Your task to perform on an android device: Search for seafood restaurants on Google Maps Image 0: 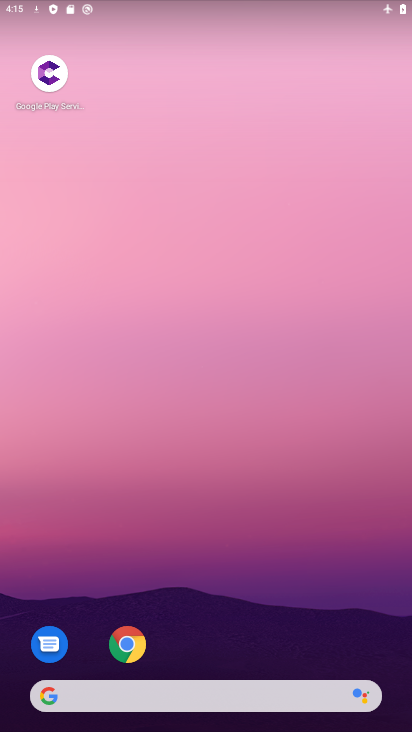
Step 0: drag from (245, 603) to (268, 283)
Your task to perform on an android device: Search for seafood restaurants on Google Maps Image 1: 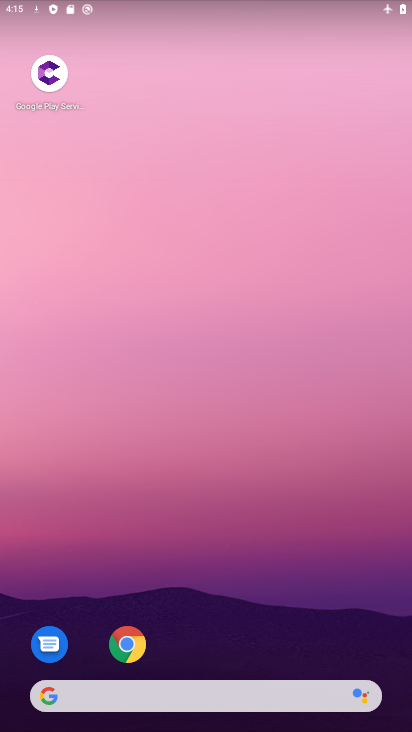
Step 1: click (199, 224)
Your task to perform on an android device: Search for seafood restaurants on Google Maps Image 2: 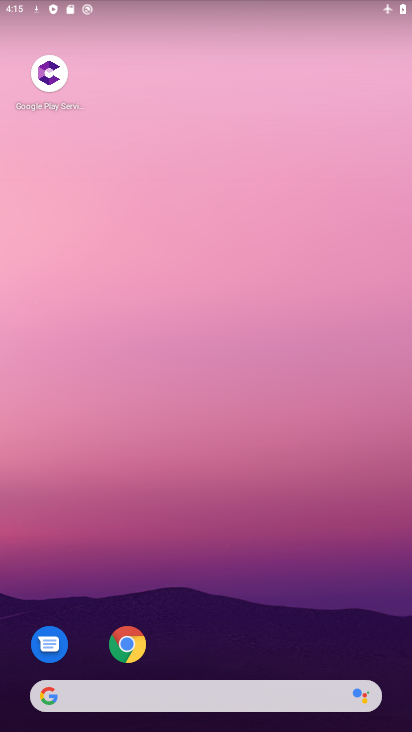
Step 2: click (302, 229)
Your task to perform on an android device: Search for seafood restaurants on Google Maps Image 3: 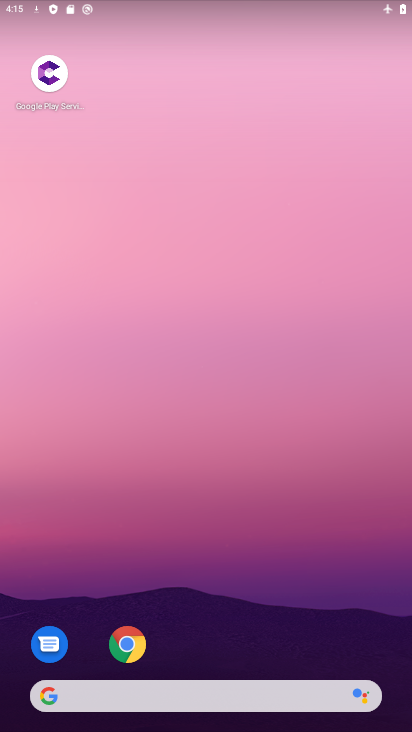
Step 3: drag from (207, 648) to (230, 283)
Your task to perform on an android device: Search for seafood restaurants on Google Maps Image 4: 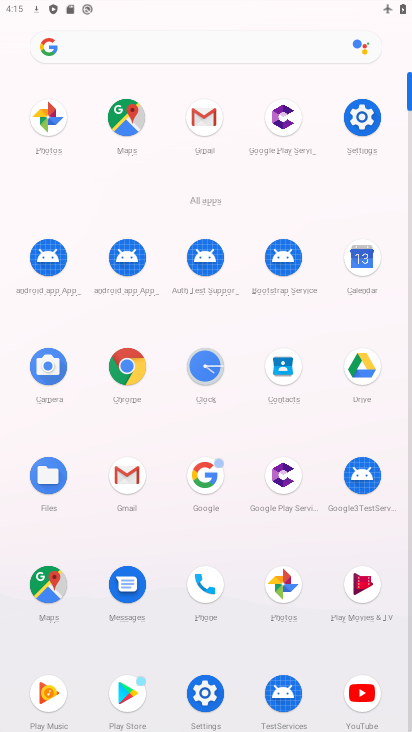
Step 4: click (126, 131)
Your task to perform on an android device: Search for seafood restaurants on Google Maps Image 5: 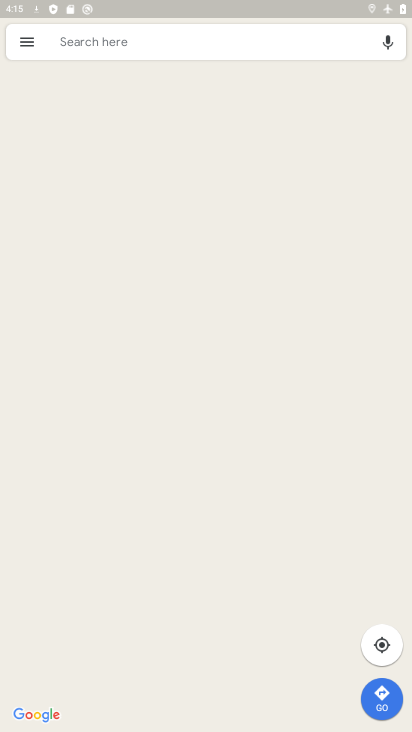
Step 5: click (188, 48)
Your task to perform on an android device: Search for seafood restaurants on Google Maps Image 6: 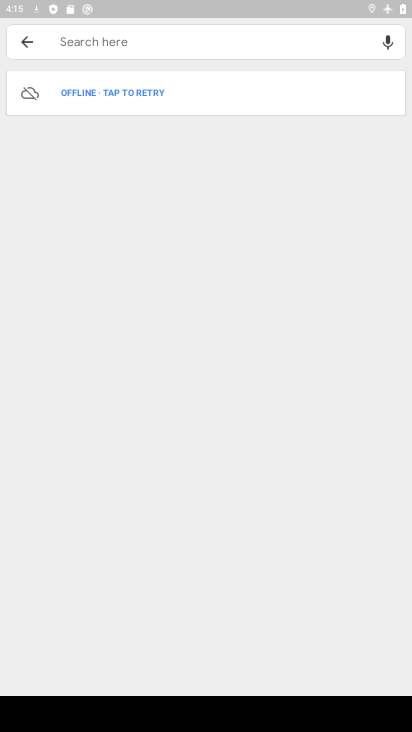
Step 6: task complete